Your task to perform on an android device: Go to privacy settings Image 0: 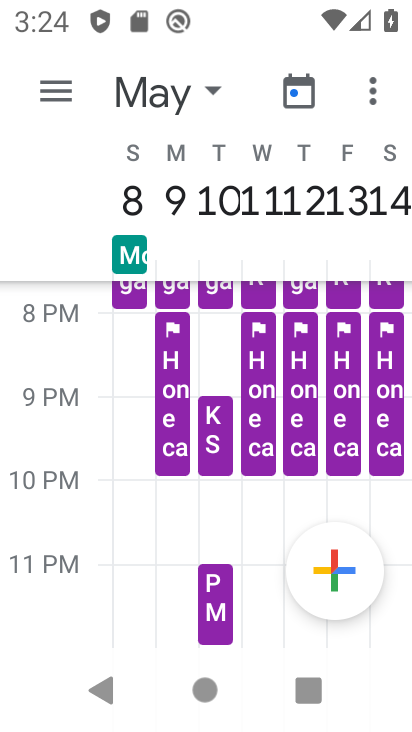
Step 0: press home button
Your task to perform on an android device: Go to privacy settings Image 1: 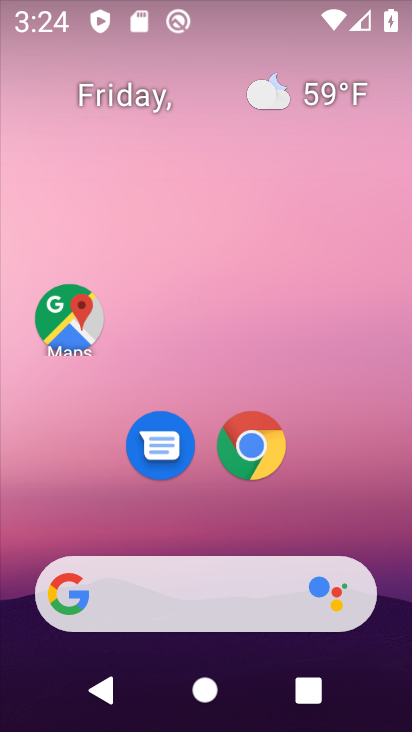
Step 1: drag from (378, 506) to (331, 92)
Your task to perform on an android device: Go to privacy settings Image 2: 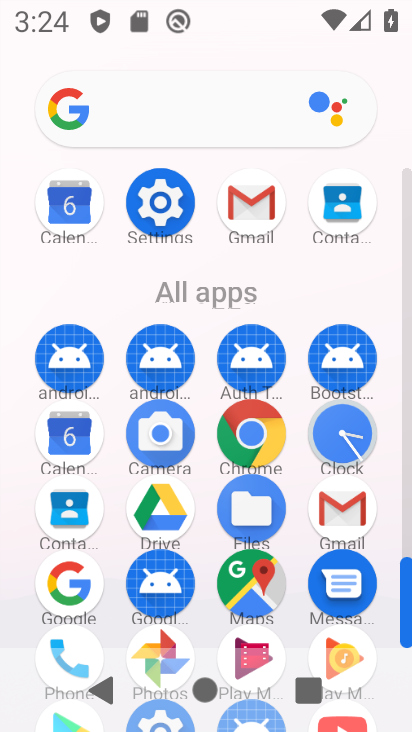
Step 2: click (407, 658)
Your task to perform on an android device: Go to privacy settings Image 3: 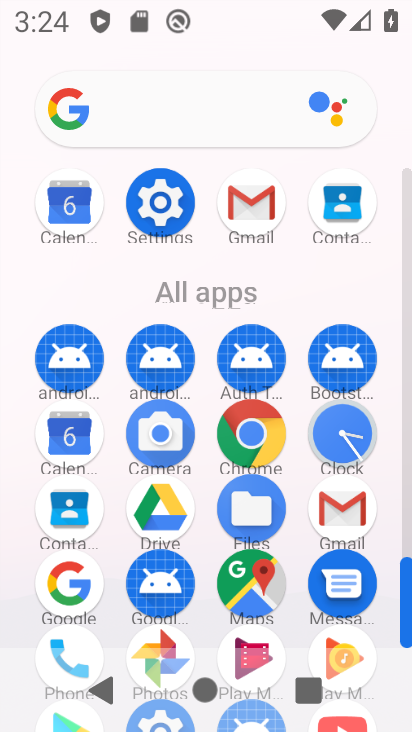
Step 3: drag from (402, 524) to (395, 402)
Your task to perform on an android device: Go to privacy settings Image 4: 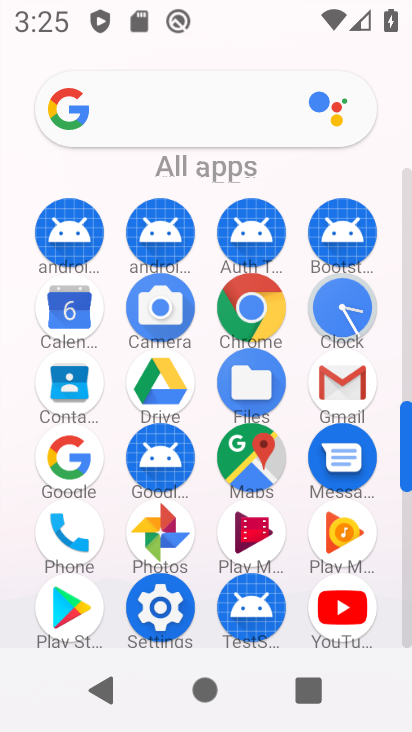
Step 4: click (161, 612)
Your task to perform on an android device: Go to privacy settings Image 5: 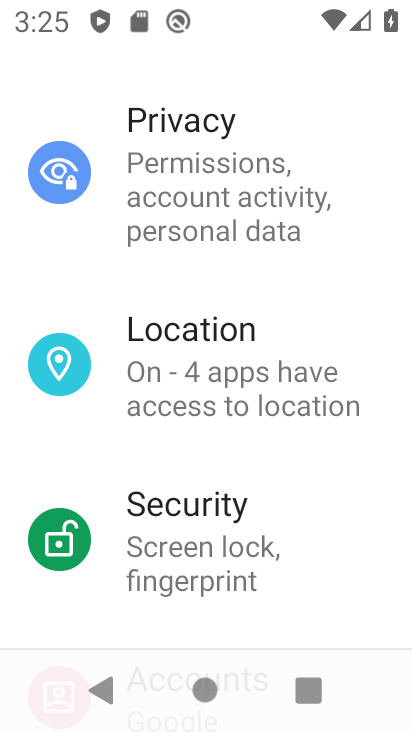
Step 5: click (186, 194)
Your task to perform on an android device: Go to privacy settings Image 6: 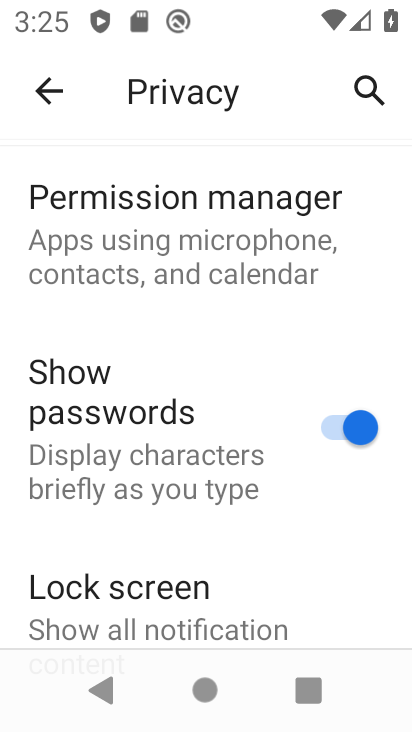
Step 6: drag from (190, 434) to (159, 263)
Your task to perform on an android device: Go to privacy settings Image 7: 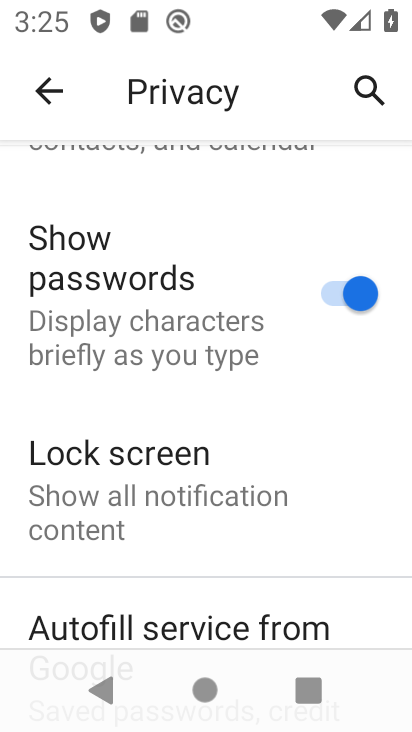
Step 7: drag from (182, 534) to (149, 343)
Your task to perform on an android device: Go to privacy settings Image 8: 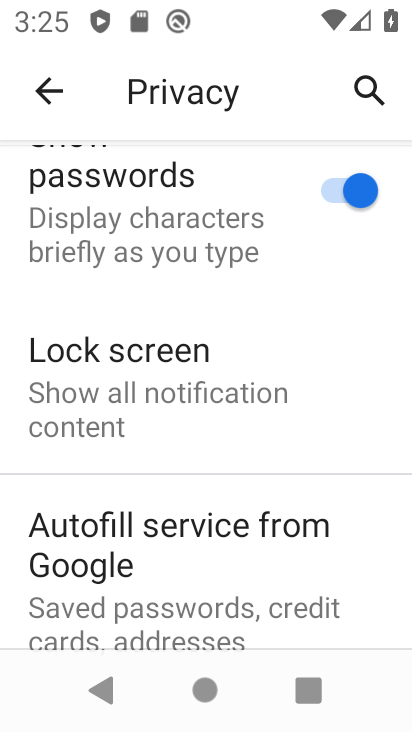
Step 8: drag from (148, 561) to (157, 126)
Your task to perform on an android device: Go to privacy settings Image 9: 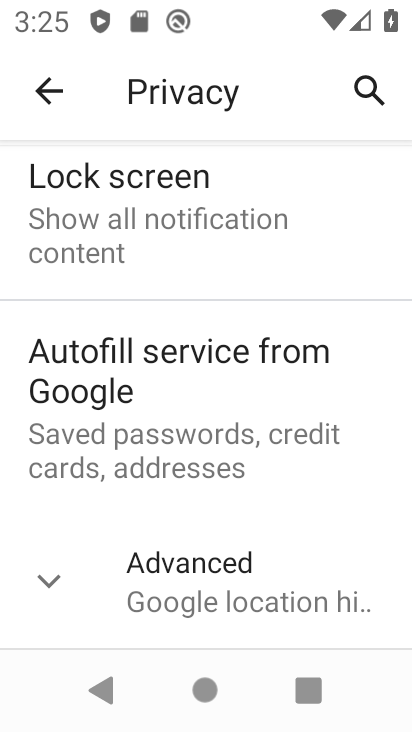
Step 9: drag from (179, 508) to (155, 215)
Your task to perform on an android device: Go to privacy settings Image 10: 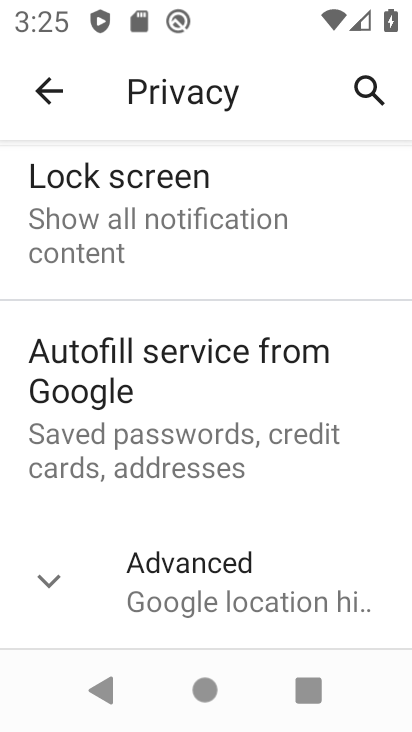
Step 10: click (59, 586)
Your task to perform on an android device: Go to privacy settings Image 11: 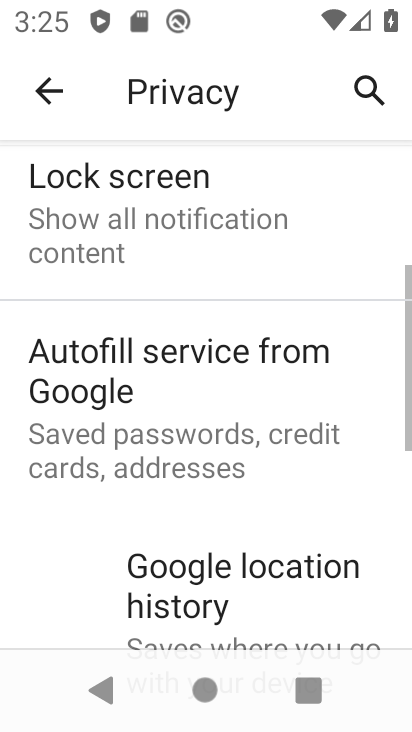
Step 11: task complete